Your task to perform on an android device: open the mobile data screen to see how much data has been used Image 0: 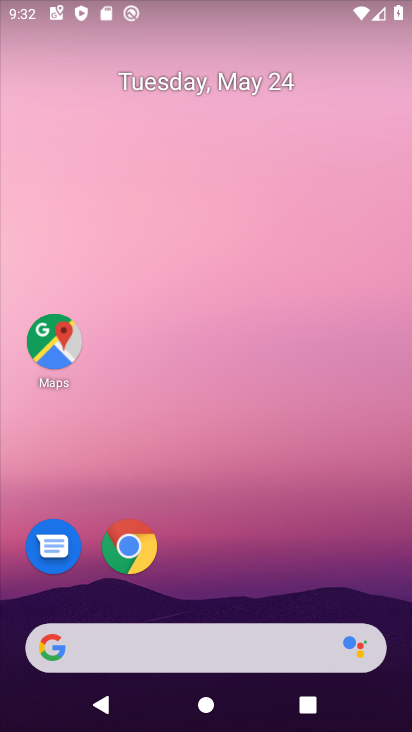
Step 0: drag from (199, 594) to (391, 8)
Your task to perform on an android device: open the mobile data screen to see how much data has been used Image 1: 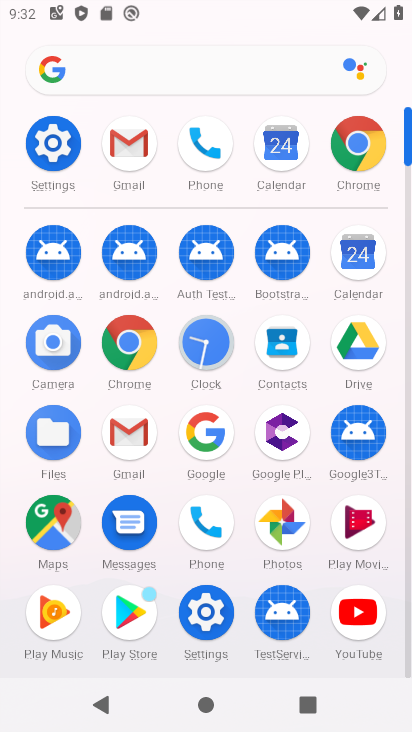
Step 1: click (69, 142)
Your task to perform on an android device: open the mobile data screen to see how much data has been used Image 2: 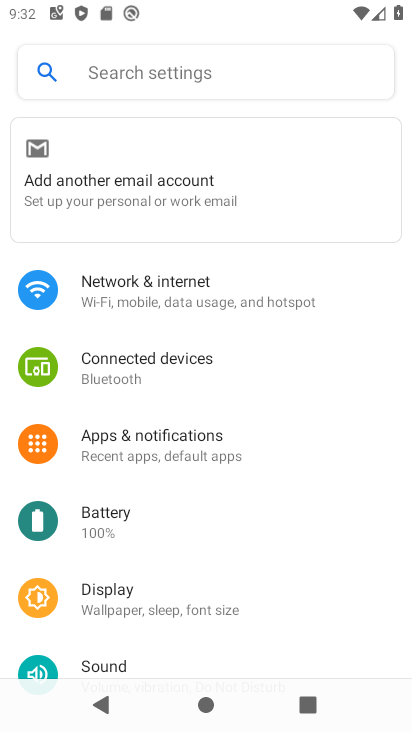
Step 2: click (153, 288)
Your task to perform on an android device: open the mobile data screen to see how much data has been used Image 3: 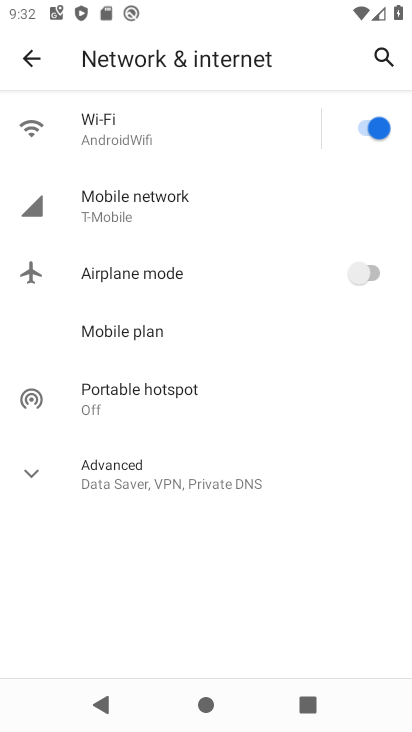
Step 3: click (133, 205)
Your task to perform on an android device: open the mobile data screen to see how much data has been used Image 4: 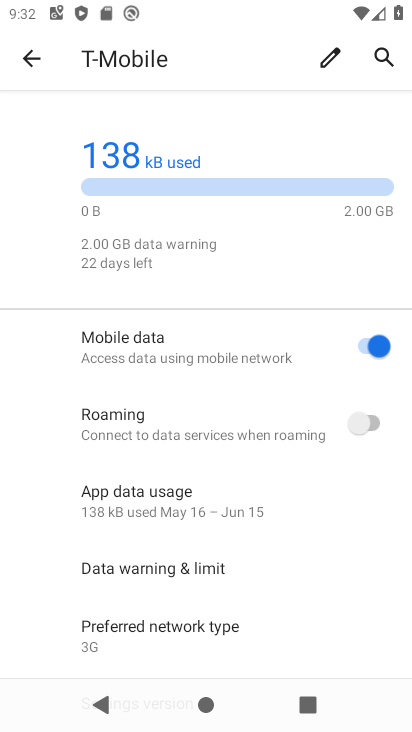
Step 4: task complete